Your task to perform on an android device: snooze an email in the gmail app Image 0: 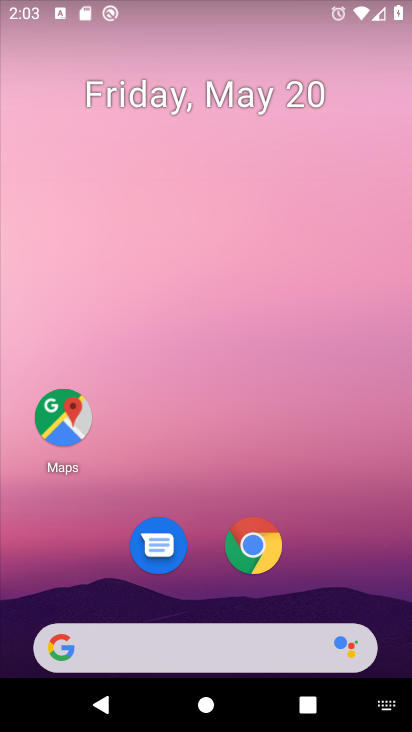
Step 0: drag from (324, 600) to (259, 116)
Your task to perform on an android device: snooze an email in the gmail app Image 1: 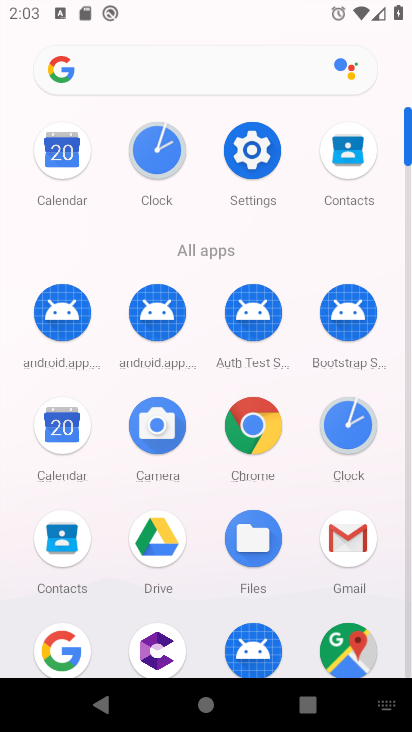
Step 1: click (350, 536)
Your task to perform on an android device: snooze an email in the gmail app Image 2: 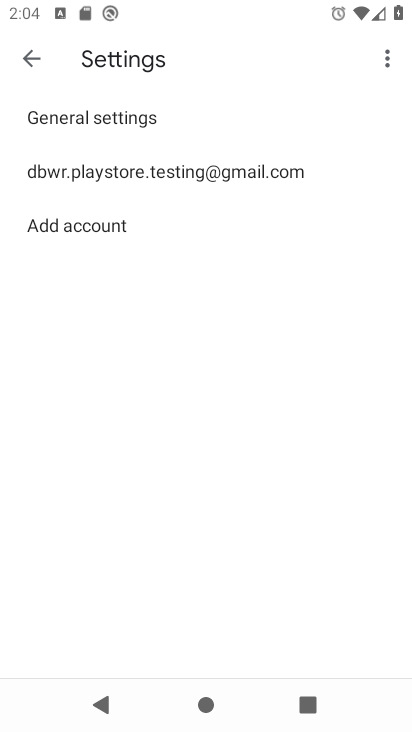
Step 2: press home button
Your task to perform on an android device: snooze an email in the gmail app Image 3: 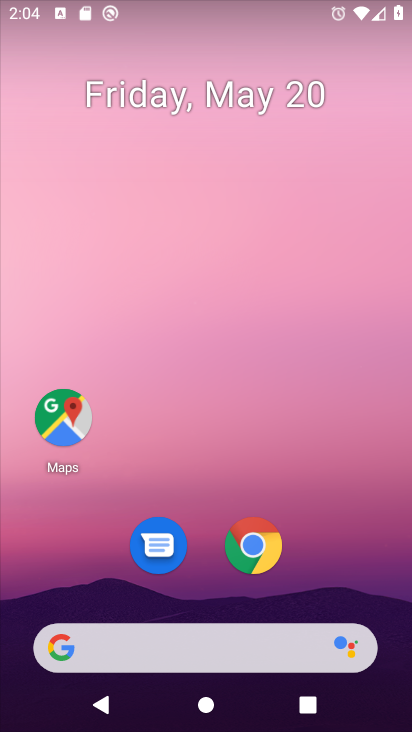
Step 3: drag from (243, 619) to (287, 25)
Your task to perform on an android device: snooze an email in the gmail app Image 4: 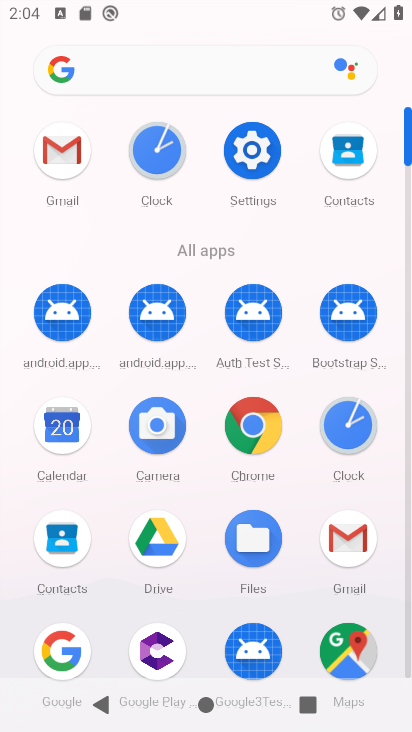
Step 4: click (346, 551)
Your task to perform on an android device: snooze an email in the gmail app Image 5: 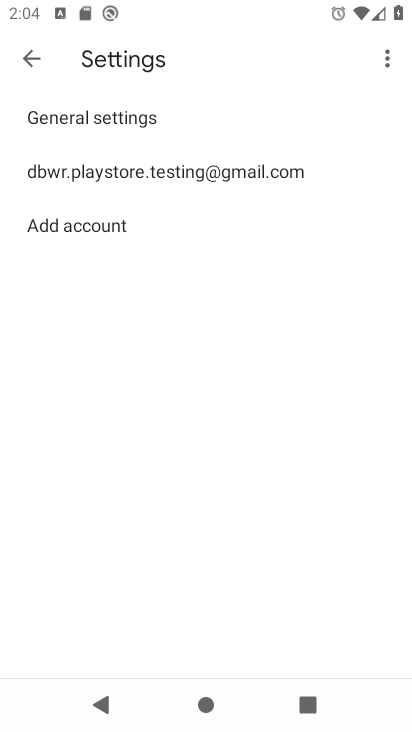
Step 5: press back button
Your task to perform on an android device: snooze an email in the gmail app Image 6: 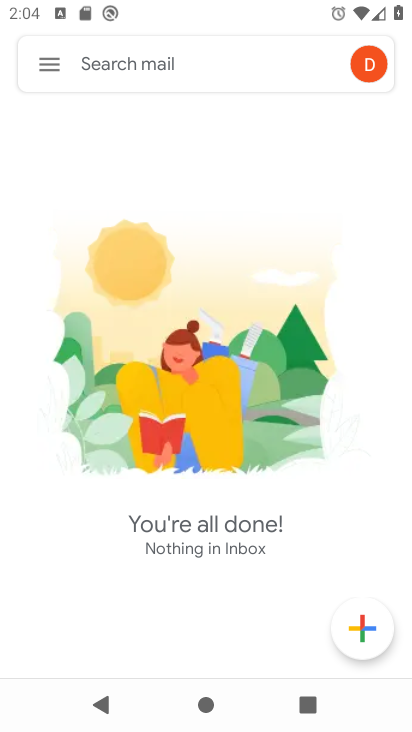
Step 6: click (36, 67)
Your task to perform on an android device: snooze an email in the gmail app Image 7: 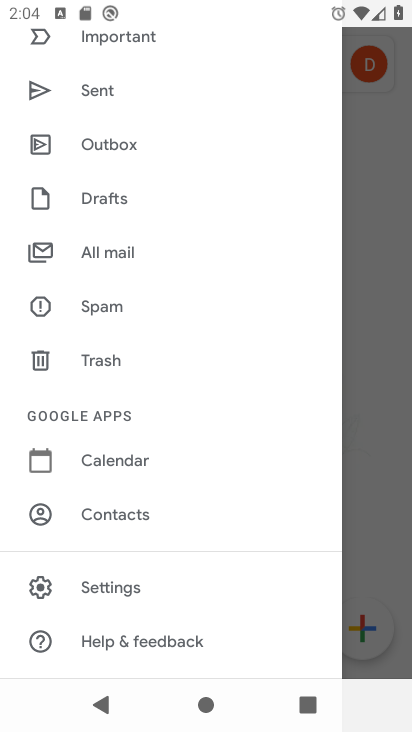
Step 7: drag from (129, 165) to (169, 590)
Your task to perform on an android device: snooze an email in the gmail app Image 8: 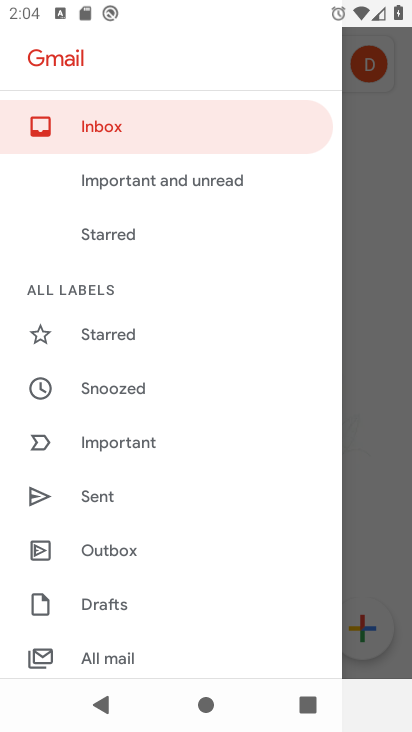
Step 8: click (112, 381)
Your task to perform on an android device: snooze an email in the gmail app Image 9: 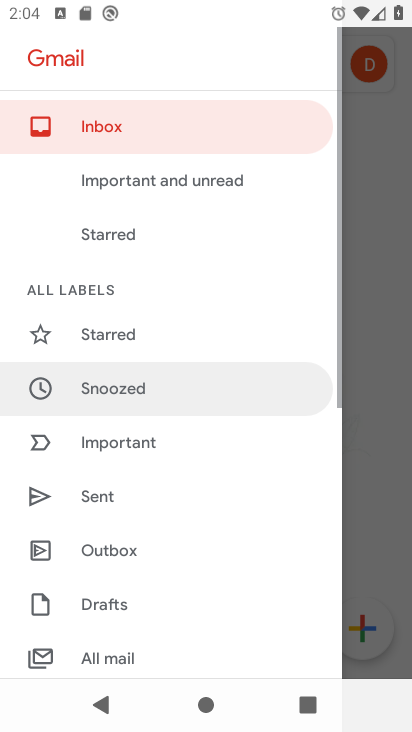
Step 9: click (112, 381)
Your task to perform on an android device: snooze an email in the gmail app Image 10: 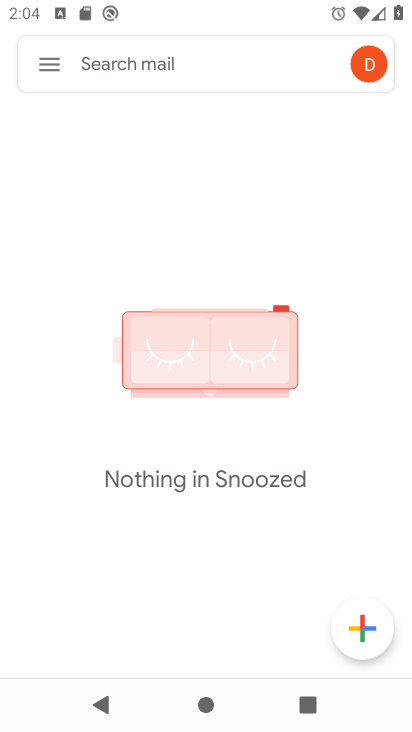
Step 10: task complete